Your task to perform on an android device: turn on data saver in the chrome app Image 0: 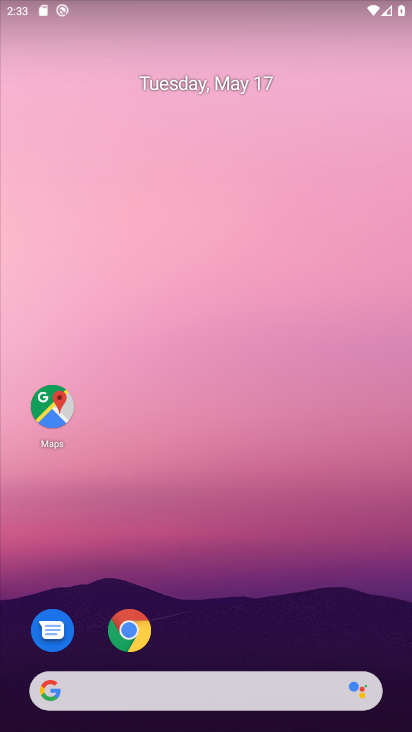
Step 0: click (130, 628)
Your task to perform on an android device: turn on data saver in the chrome app Image 1: 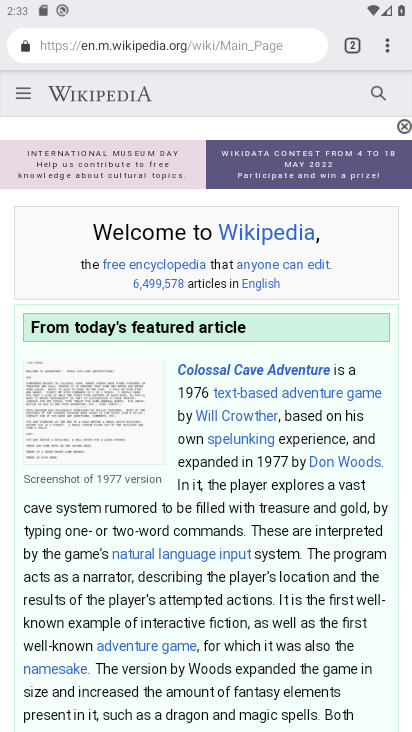
Step 1: click (386, 46)
Your task to perform on an android device: turn on data saver in the chrome app Image 2: 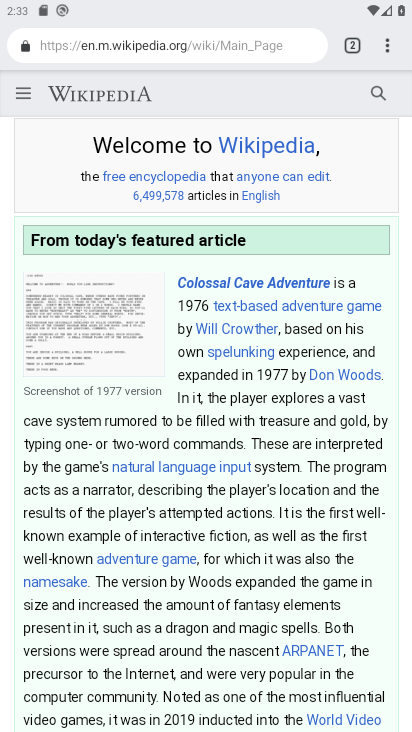
Step 2: click (388, 46)
Your task to perform on an android device: turn on data saver in the chrome app Image 3: 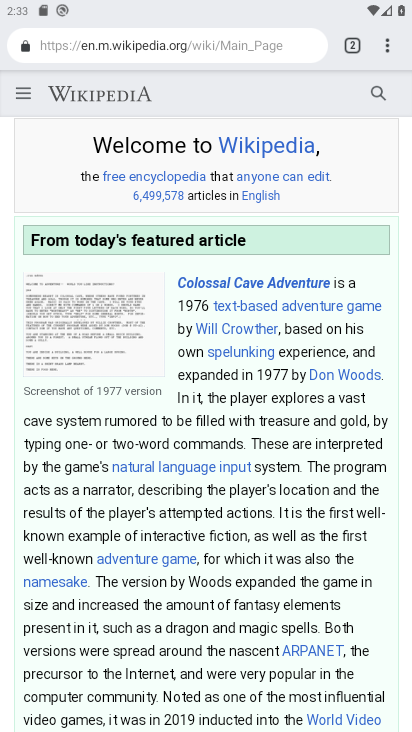
Step 3: click (395, 52)
Your task to perform on an android device: turn on data saver in the chrome app Image 4: 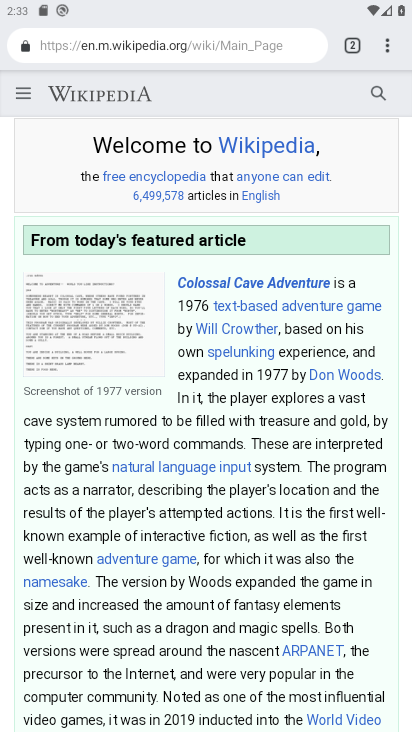
Step 4: click (392, 34)
Your task to perform on an android device: turn on data saver in the chrome app Image 5: 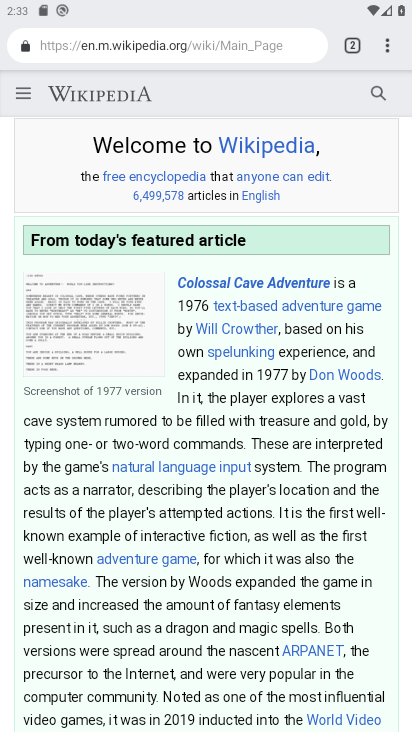
Step 5: click (393, 49)
Your task to perform on an android device: turn on data saver in the chrome app Image 6: 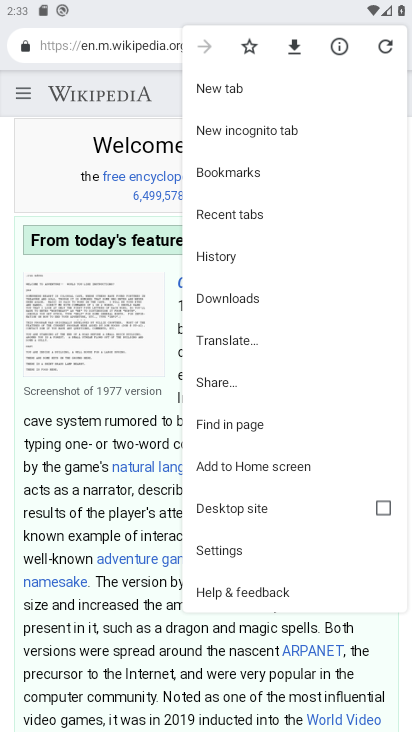
Step 6: click (217, 552)
Your task to perform on an android device: turn on data saver in the chrome app Image 7: 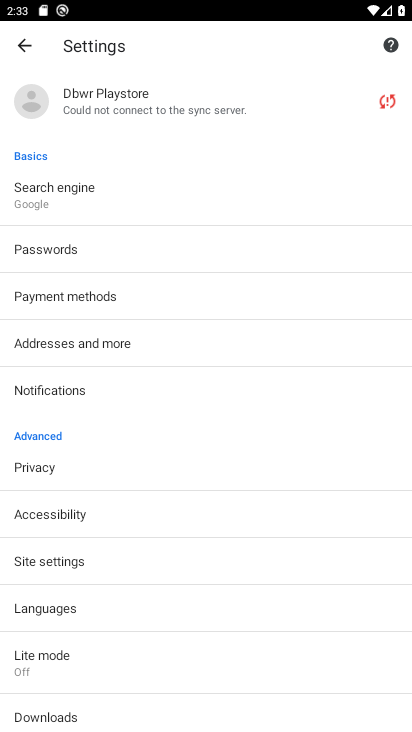
Step 7: click (83, 664)
Your task to perform on an android device: turn on data saver in the chrome app Image 8: 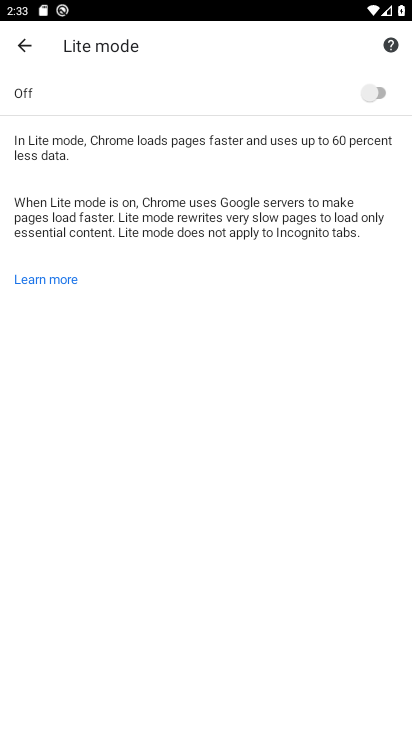
Step 8: click (379, 88)
Your task to perform on an android device: turn on data saver in the chrome app Image 9: 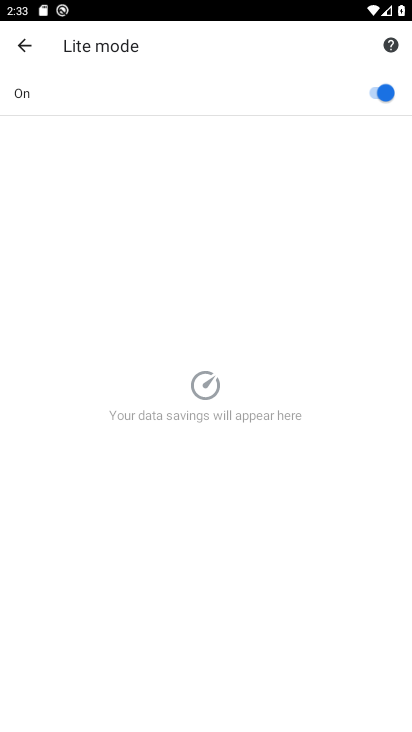
Step 9: task complete